Your task to perform on an android device: Open ESPN.com Image 0: 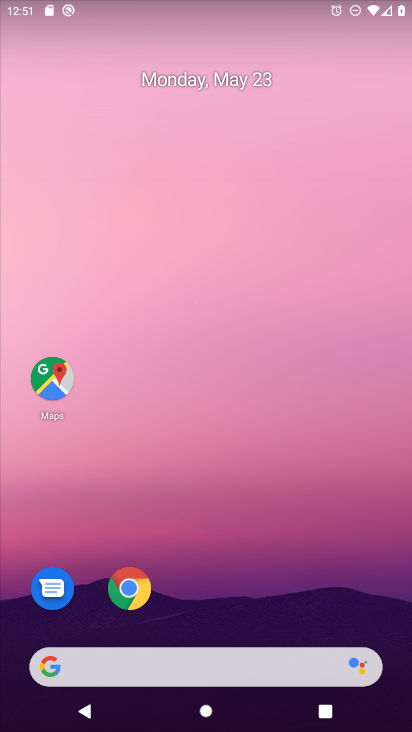
Step 0: press home button
Your task to perform on an android device: Open ESPN.com Image 1: 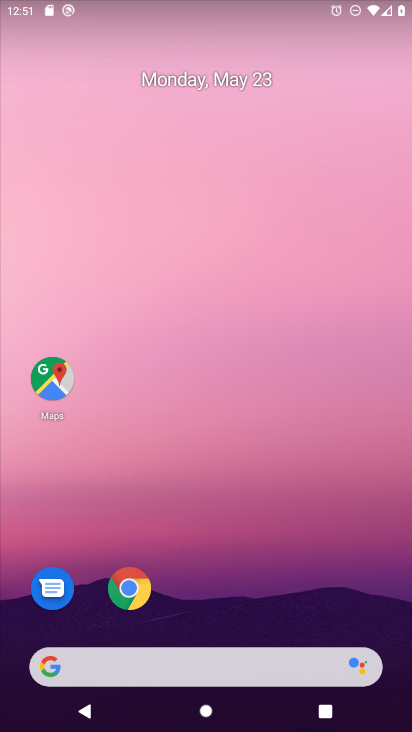
Step 1: drag from (299, 688) to (156, 101)
Your task to perform on an android device: Open ESPN.com Image 2: 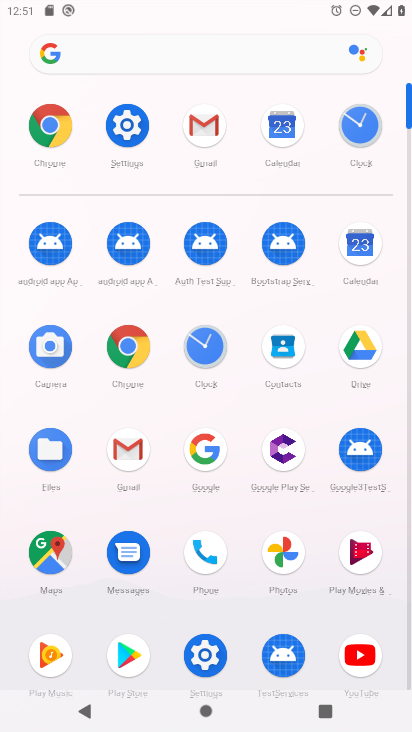
Step 2: click (73, 139)
Your task to perform on an android device: Open ESPN.com Image 3: 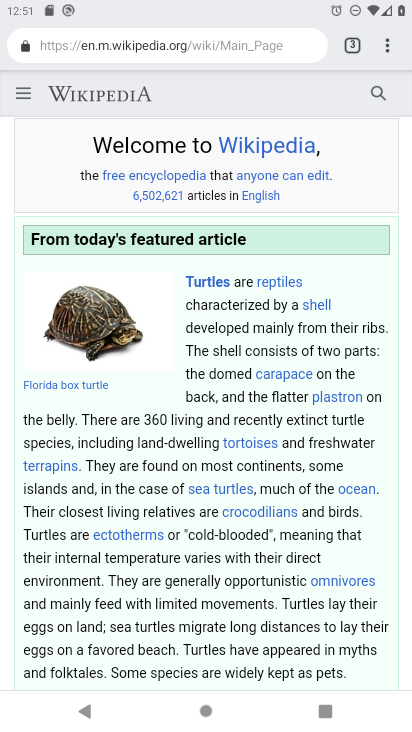
Step 3: click (128, 42)
Your task to perform on an android device: Open ESPN.com Image 4: 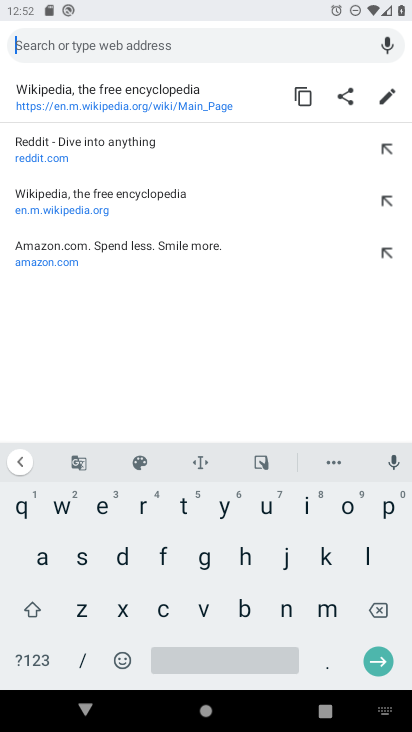
Step 4: click (103, 504)
Your task to perform on an android device: Open ESPN.com Image 5: 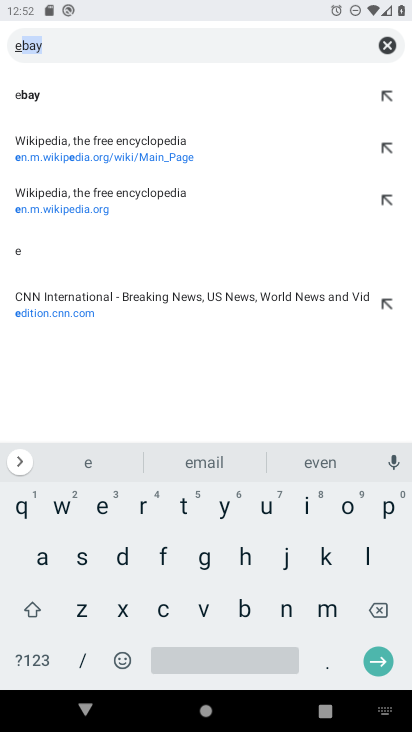
Step 5: click (82, 556)
Your task to perform on an android device: Open ESPN.com Image 6: 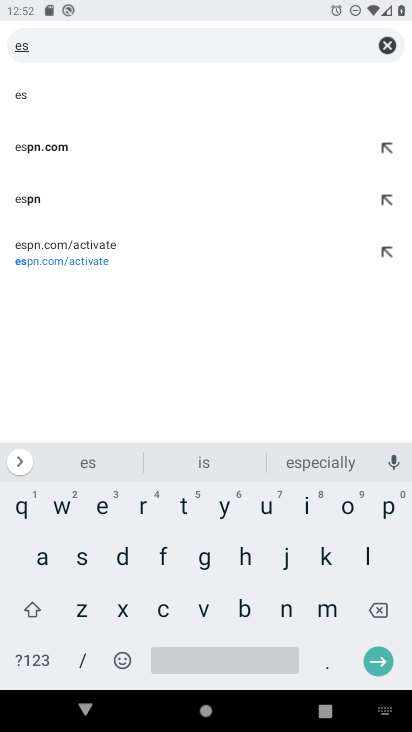
Step 6: click (68, 138)
Your task to perform on an android device: Open ESPN.com Image 7: 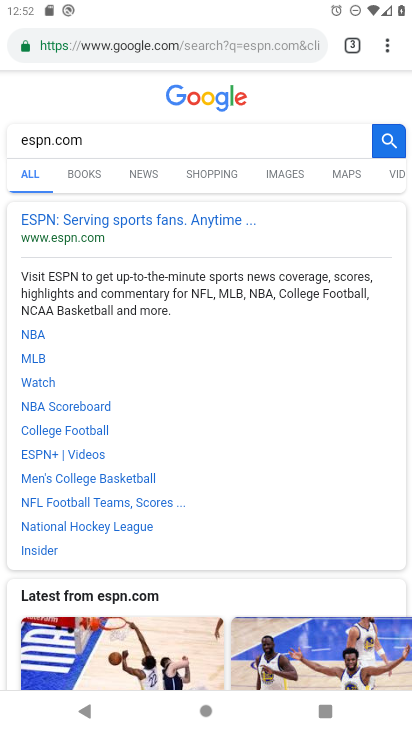
Step 7: click (79, 214)
Your task to perform on an android device: Open ESPN.com Image 8: 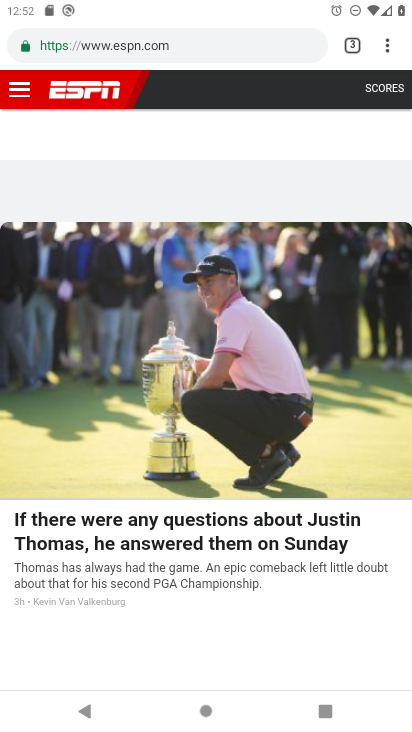
Step 8: task complete